Your task to perform on an android device: Open privacy settings Image 0: 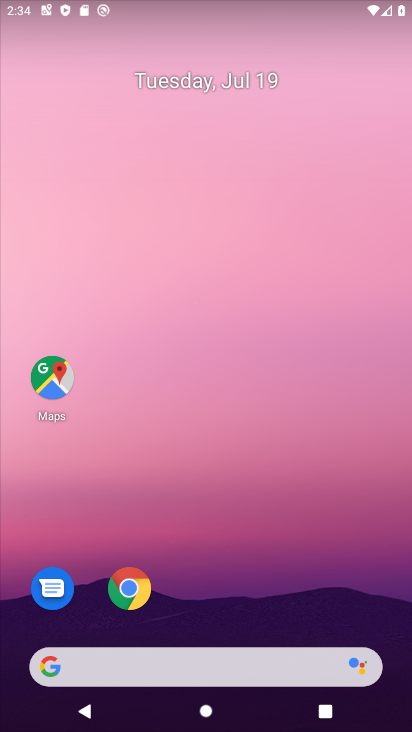
Step 0: drag from (194, 591) to (207, 0)
Your task to perform on an android device: Open privacy settings Image 1: 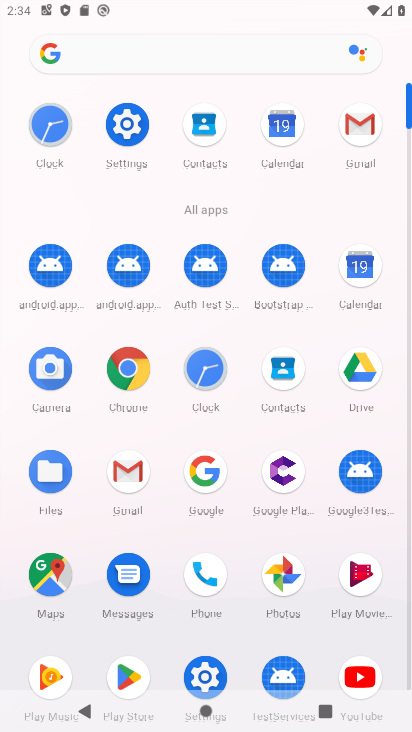
Step 1: click (122, 131)
Your task to perform on an android device: Open privacy settings Image 2: 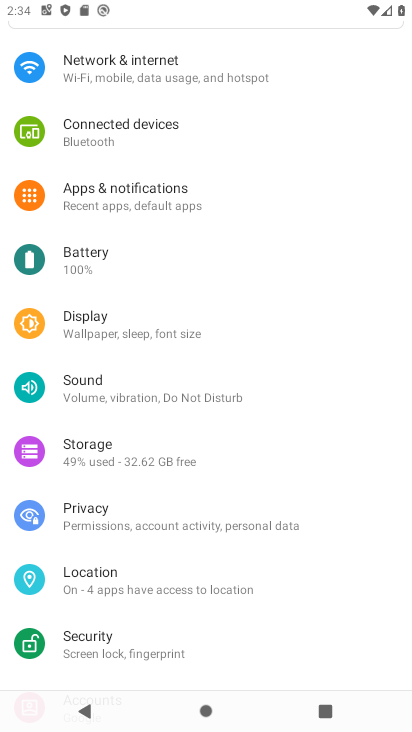
Step 2: click (100, 505)
Your task to perform on an android device: Open privacy settings Image 3: 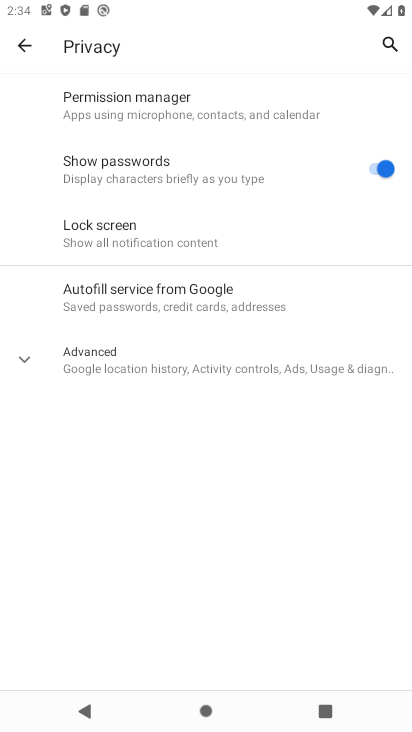
Step 3: task complete